Your task to perform on an android device: change the upload size in google photos Image 0: 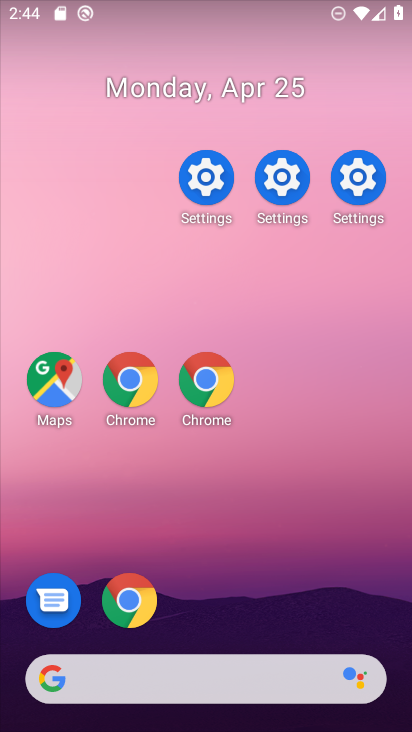
Step 0: click (188, 21)
Your task to perform on an android device: change the upload size in google photos Image 1: 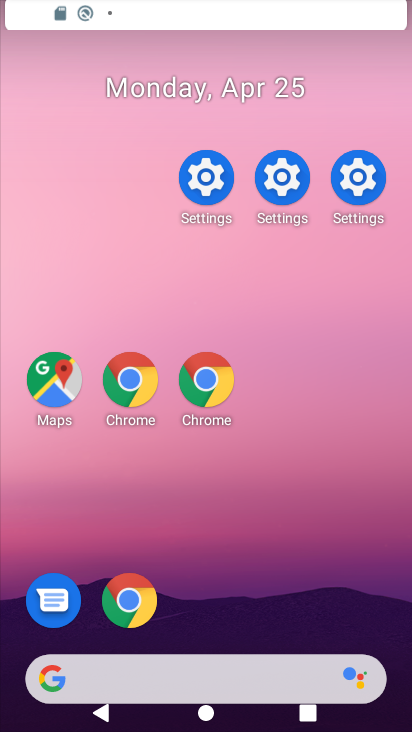
Step 1: click (199, 7)
Your task to perform on an android device: change the upload size in google photos Image 2: 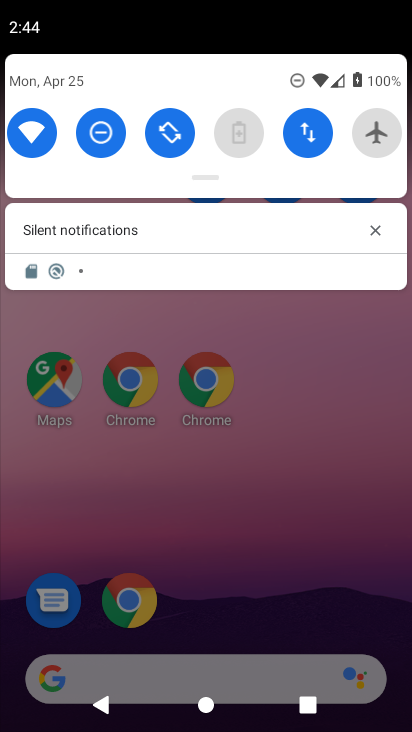
Step 2: drag from (138, 109) to (268, 154)
Your task to perform on an android device: change the upload size in google photos Image 3: 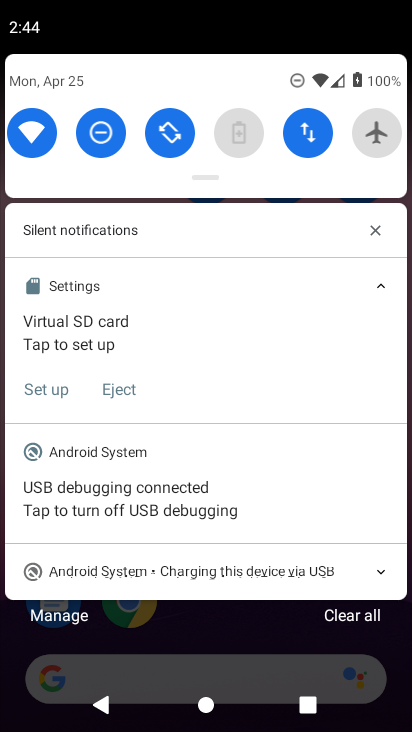
Step 3: press home button
Your task to perform on an android device: change the upload size in google photos Image 4: 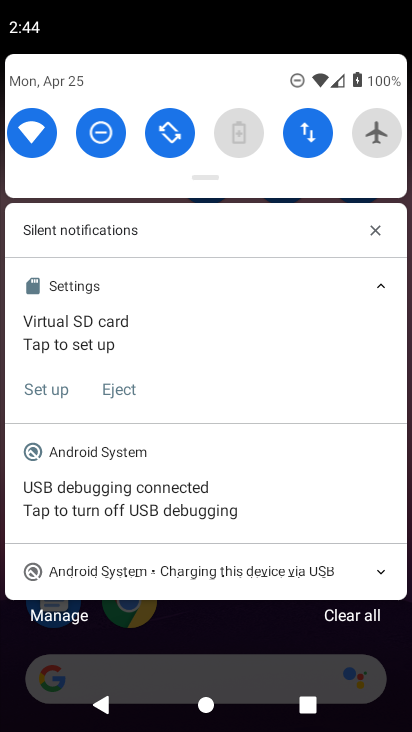
Step 4: press home button
Your task to perform on an android device: change the upload size in google photos Image 5: 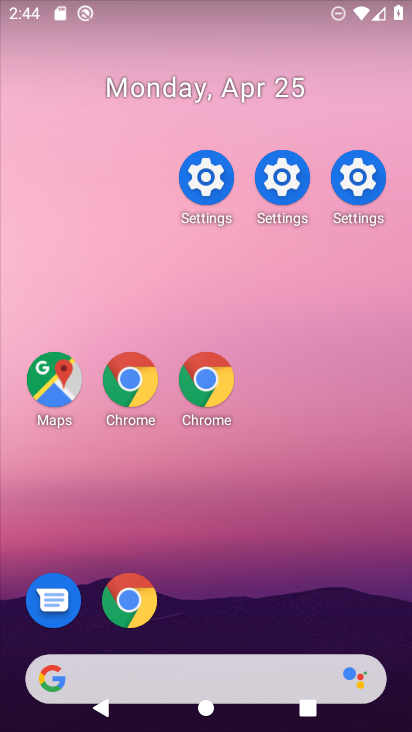
Step 5: press home button
Your task to perform on an android device: change the upload size in google photos Image 6: 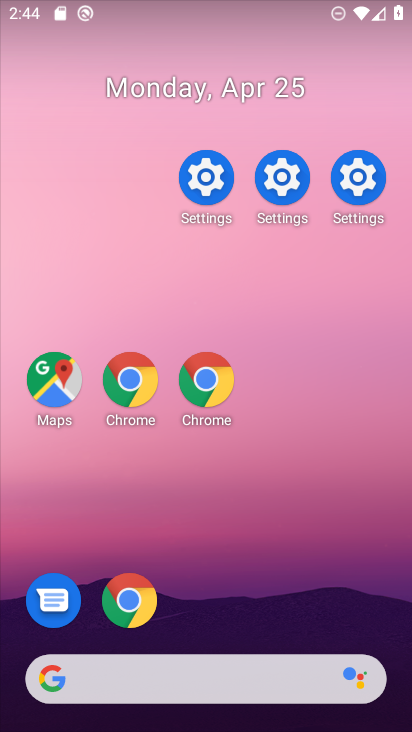
Step 6: drag from (262, 650) to (220, 47)
Your task to perform on an android device: change the upload size in google photos Image 7: 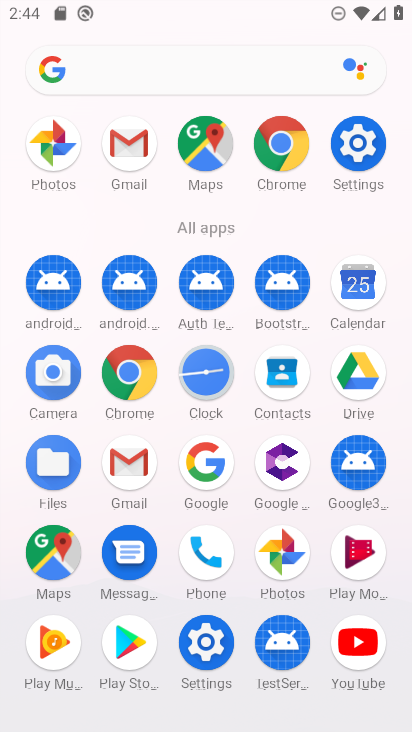
Step 7: click (272, 555)
Your task to perform on an android device: change the upload size in google photos Image 8: 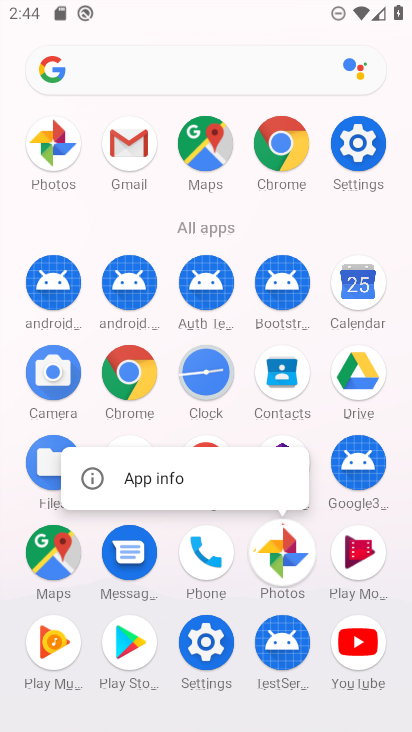
Step 8: click (272, 555)
Your task to perform on an android device: change the upload size in google photos Image 9: 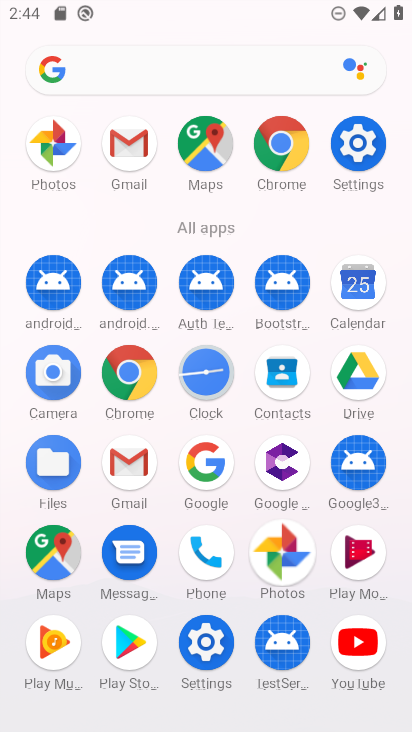
Step 9: click (276, 551)
Your task to perform on an android device: change the upload size in google photos Image 10: 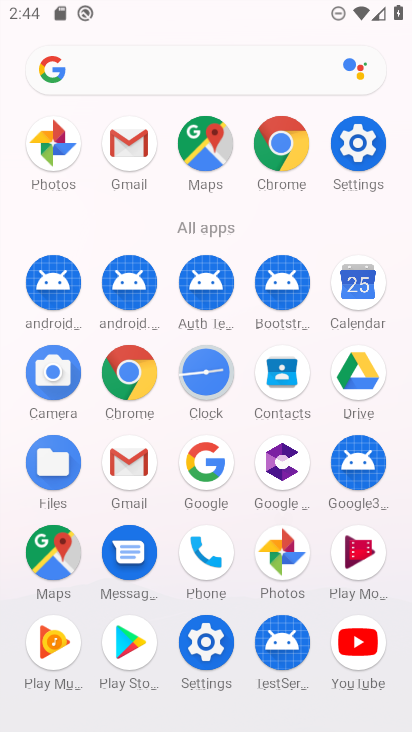
Step 10: click (278, 549)
Your task to perform on an android device: change the upload size in google photos Image 11: 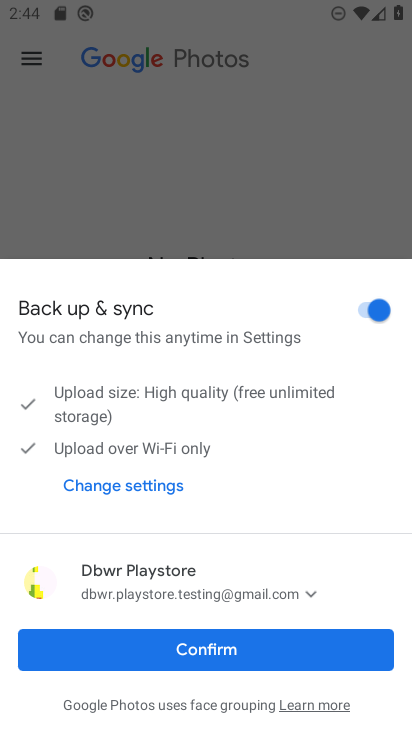
Step 11: click (202, 646)
Your task to perform on an android device: change the upload size in google photos Image 12: 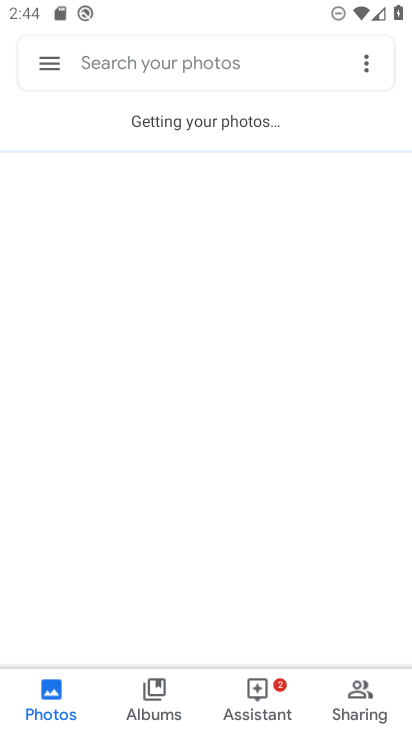
Step 12: click (46, 57)
Your task to perform on an android device: change the upload size in google photos Image 13: 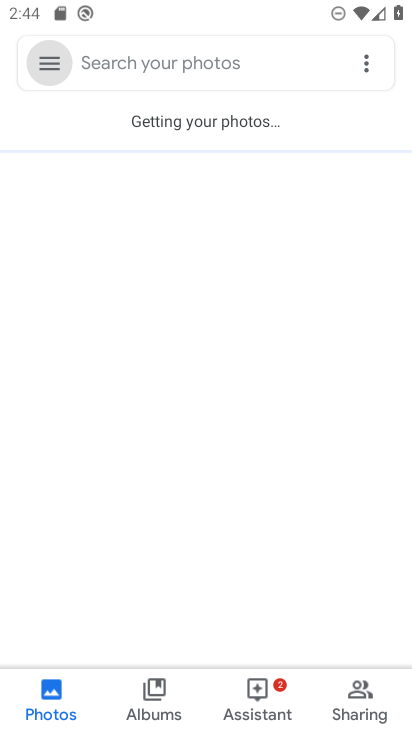
Step 13: drag from (46, 57) to (77, 352)
Your task to perform on an android device: change the upload size in google photos Image 14: 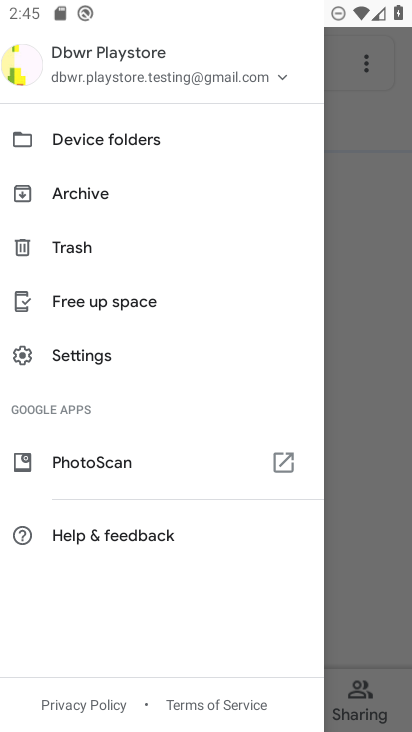
Step 14: click (76, 353)
Your task to perform on an android device: change the upload size in google photos Image 15: 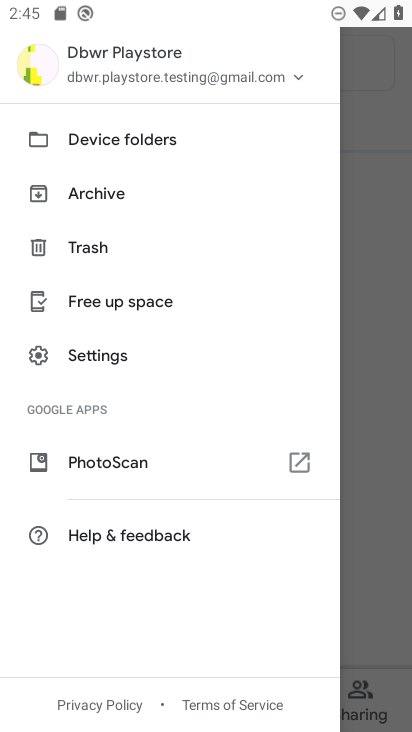
Step 15: click (76, 353)
Your task to perform on an android device: change the upload size in google photos Image 16: 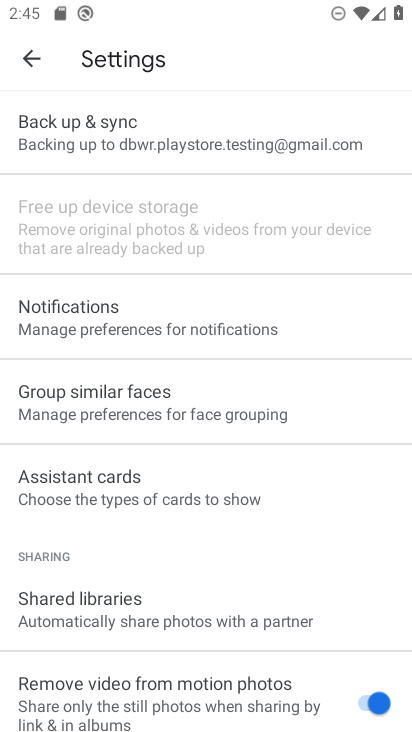
Step 16: click (93, 135)
Your task to perform on an android device: change the upload size in google photos Image 17: 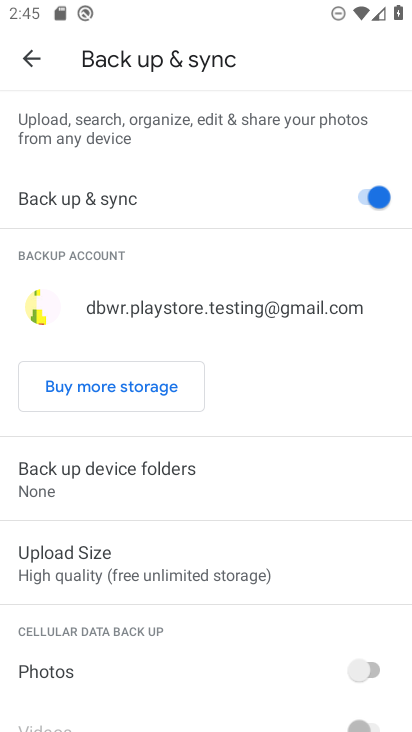
Step 17: click (63, 554)
Your task to perform on an android device: change the upload size in google photos Image 18: 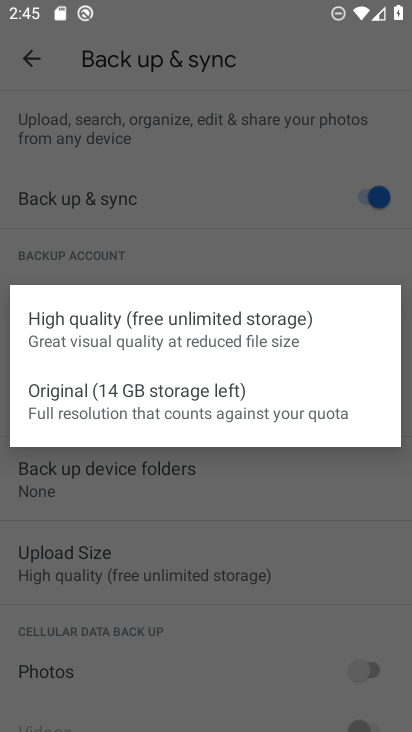
Step 18: click (127, 326)
Your task to perform on an android device: change the upload size in google photos Image 19: 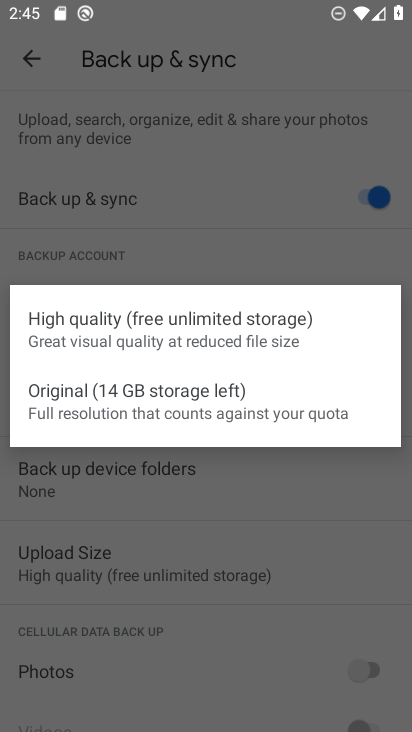
Step 19: click (136, 321)
Your task to perform on an android device: change the upload size in google photos Image 20: 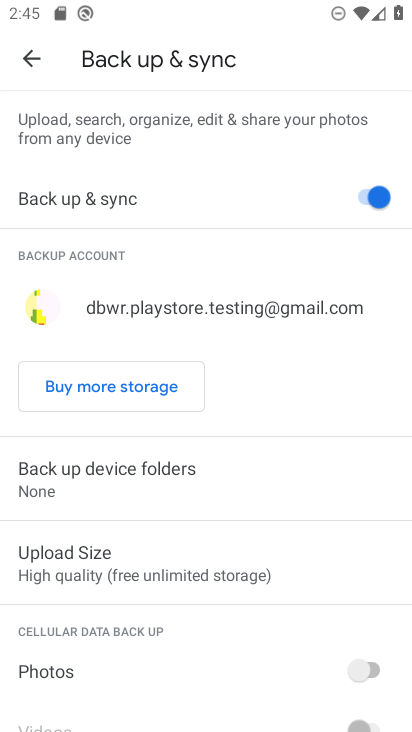
Step 20: task complete